Your task to perform on an android device: turn off javascript in the chrome app Image 0: 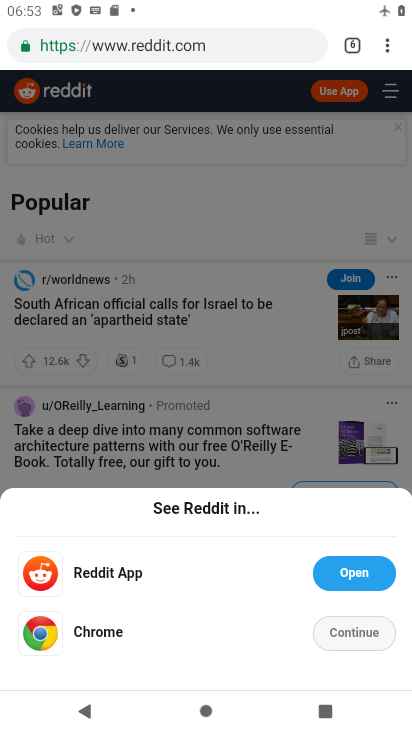
Step 0: press home button
Your task to perform on an android device: turn off javascript in the chrome app Image 1: 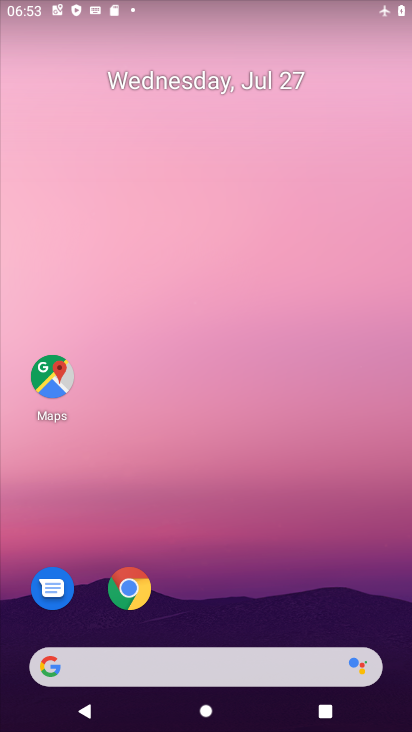
Step 1: drag from (251, 666) to (385, 91)
Your task to perform on an android device: turn off javascript in the chrome app Image 2: 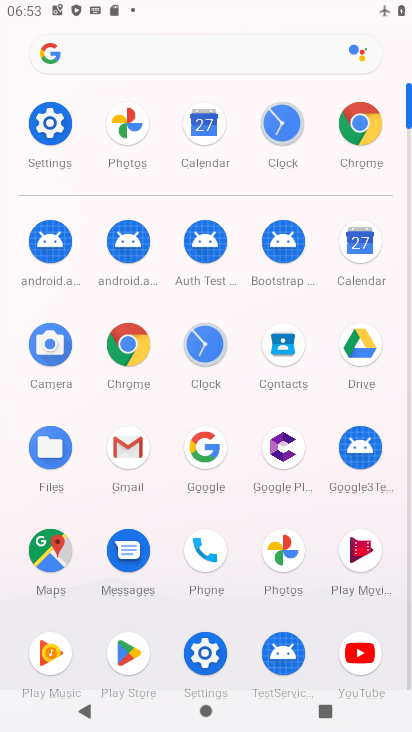
Step 2: click (124, 346)
Your task to perform on an android device: turn off javascript in the chrome app Image 3: 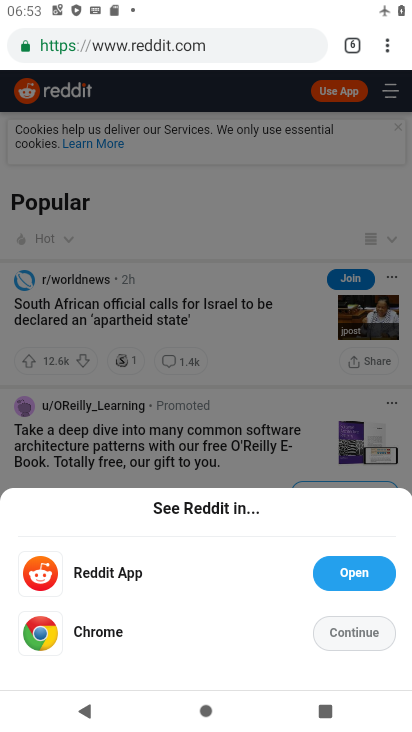
Step 3: click (392, 46)
Your task to perform on an android device: turn off javascript in the chrome app Image 4: 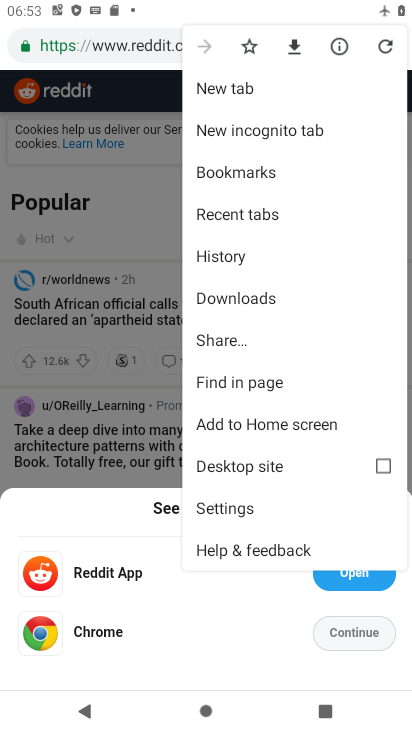
Step 4: click (248, 510)
Your task to perform on an android device: turn off javascript in the chrome app Image 5: 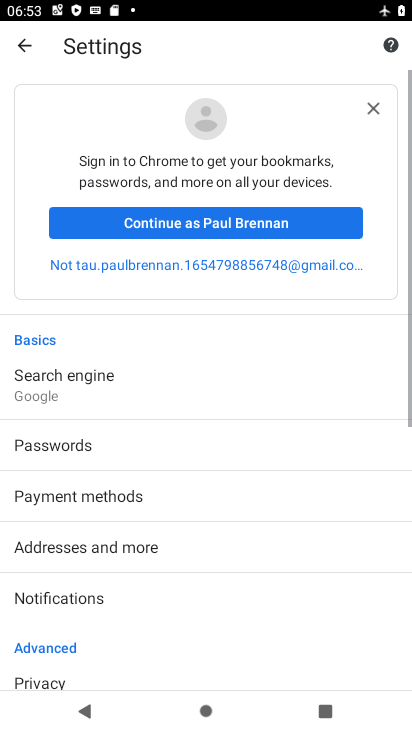
Step 5: drag from (148, 618) to (209, 150)
Your task to perform on an android device: turn off javascript in the chrome app Image 6: 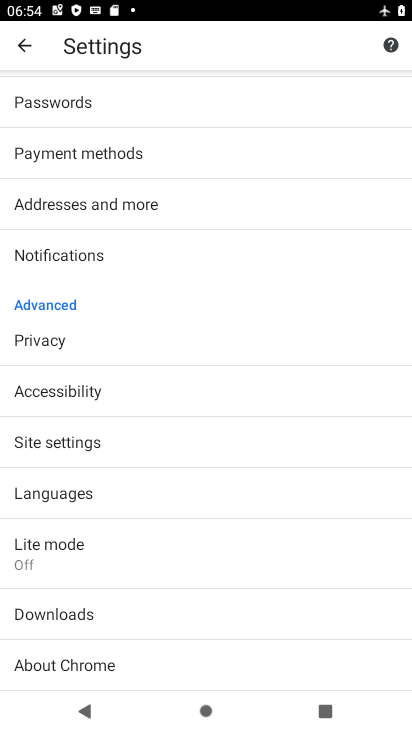
Step 6: click (84, 458)
Your task to perform on an android device: turn off javascript in the chrome app Image 7: 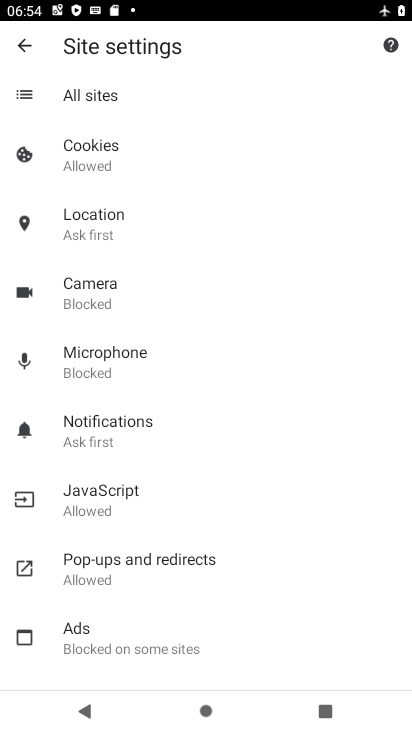
Step 7: click (133, 498)
Your task to perform on an android device: turn off javascript in the chrome app Image 8: 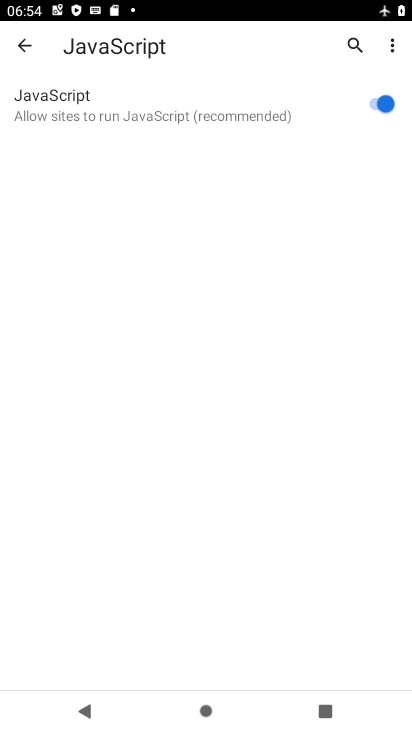
Step 8: click (376, 105)
Your task to perform on an android device: turn off javascript in the chrome app Image 9: 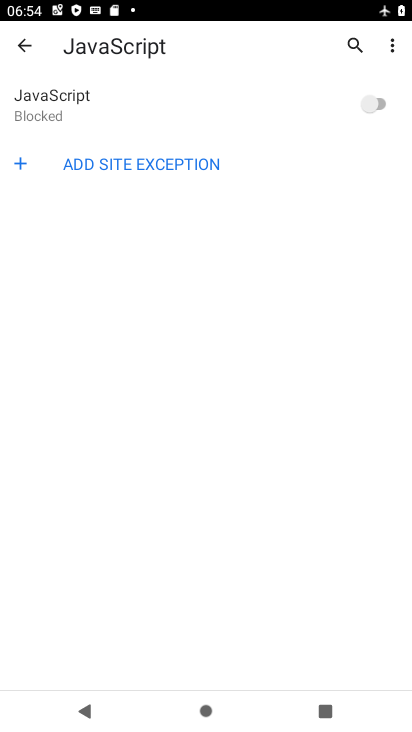
Step 9: task complete